Your task to perform on an android device: turn off wifi Image 0: 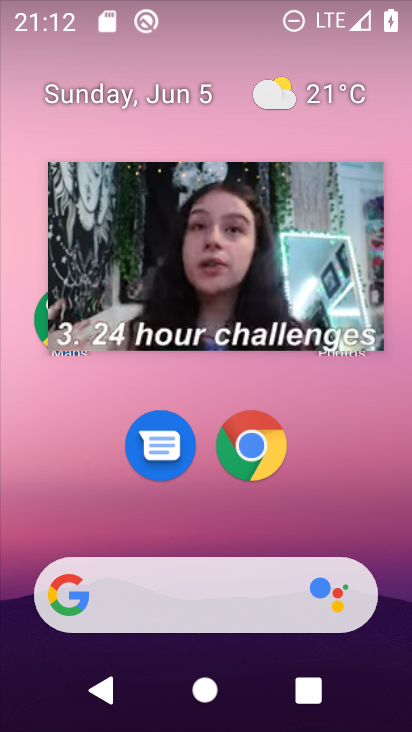
Step 0: press home button
Your task to perform on an android device: turn off wifi Image 1: 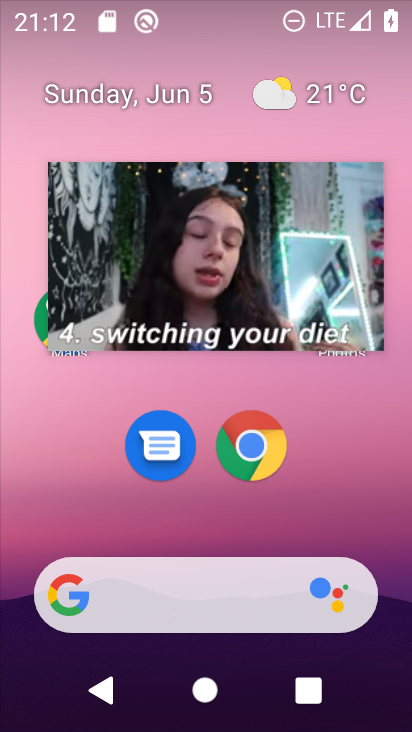
Step 1: drag from (339, 492) to (266, 5)
Your task to perform on an android device: turn off wifi Image 2: 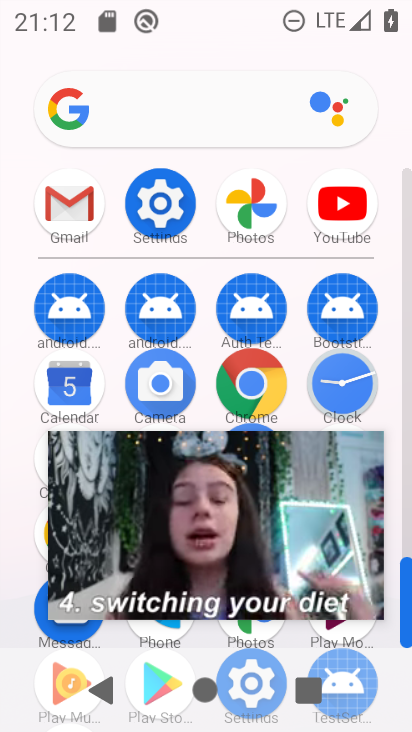
Step 2: click (159, 221)
Your task to perform on an android device: turn off wifi Image 3: 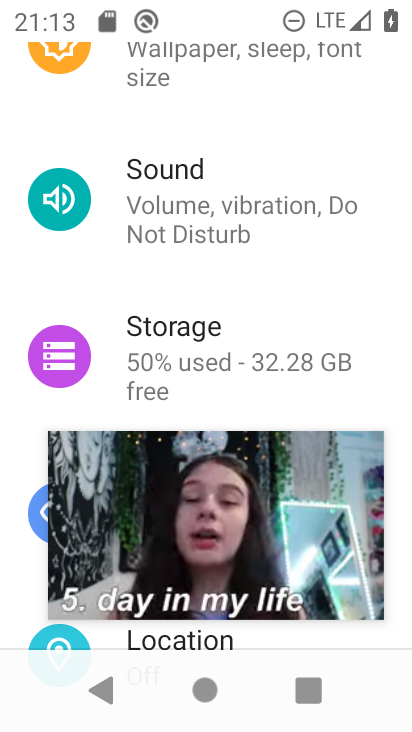
Step 3: drag from (104, 118) to (50, 726)
Your task to perform on an android device: turn off wifi Image 4: 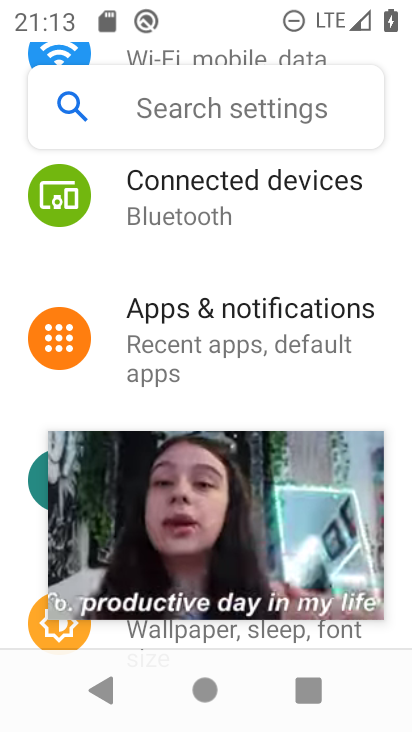
Step 4: drag from (106, 226) to (141, 452)
Your task to perform on an android device: turn off wifi Image 5: 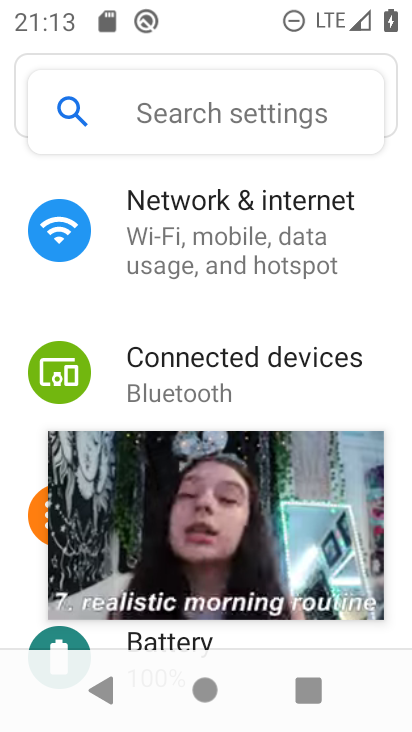
Step 5: click (148, 248)
Your task to perform on an android device: turn off wifi Image 6: 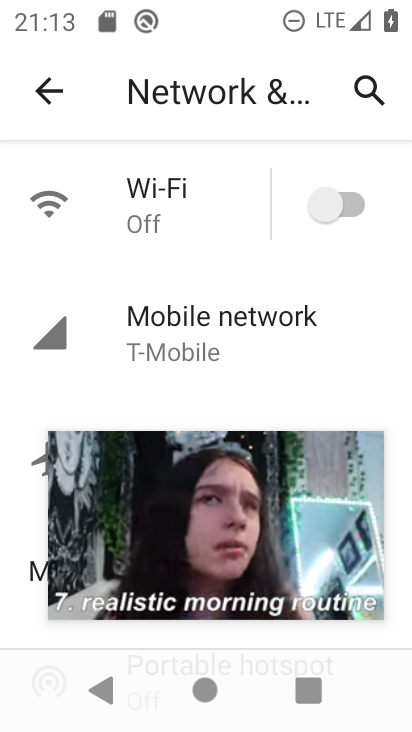
Step 6: task complete